Your task to perform on an android device: Play the last video I watched on Youtube Image 0: 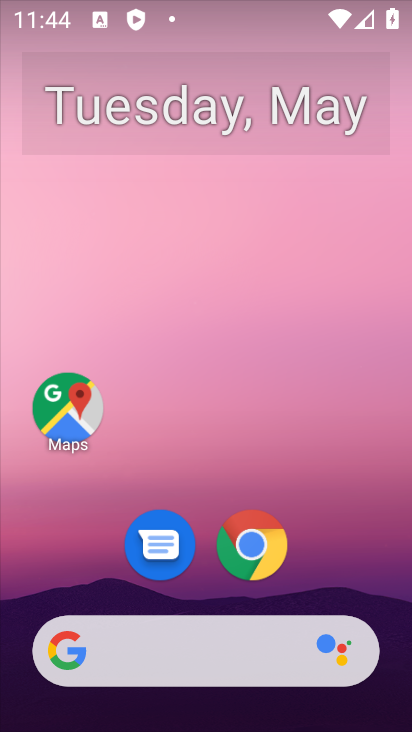
Step 0: drag from (230, 602) to (233, 182)
Your task to perform on an android device: Play the last video I watched on Youtube Image 1: 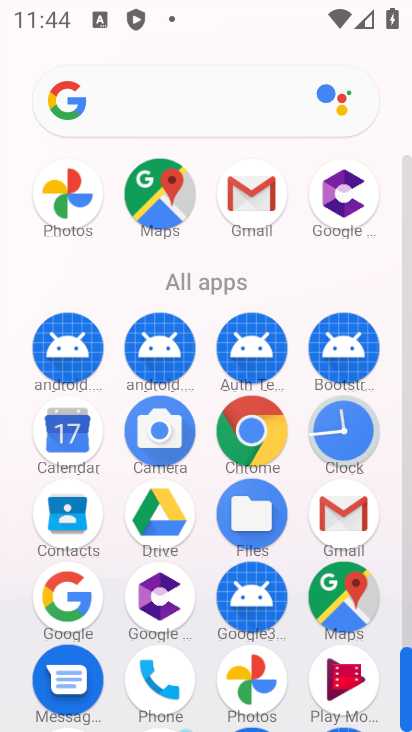
Step 1: drag from (202, 653) to (239, 259)
Your task to perform on an android device: Play the last video I watched on Youtube Image 2: 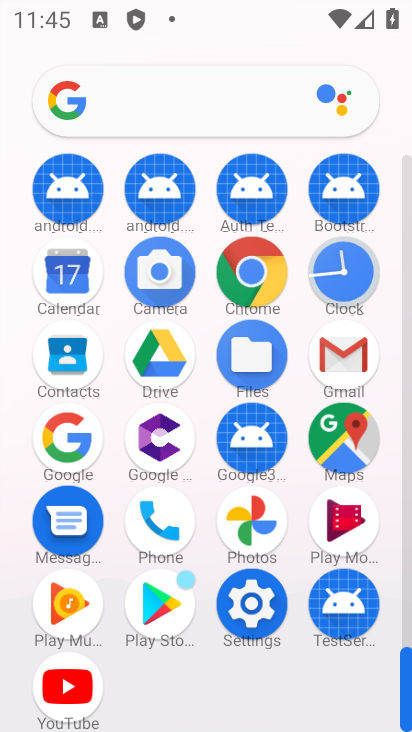
Step 2: click (69, 678)
Your task to perform on an android device: Play the last video I watched on Youtube Image 3: 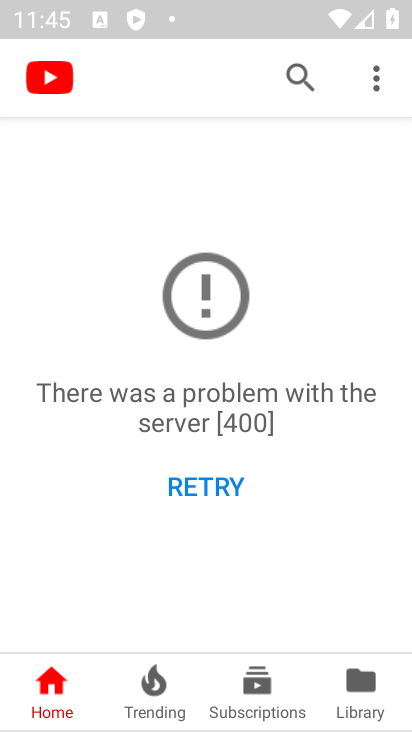
Step 3: task complete